Your task to perform on an android device: toggle pop-ups in chrome Image 0: 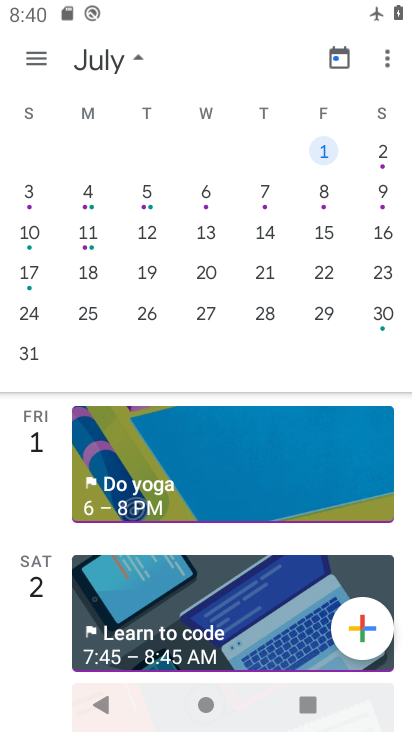
Step 0: press back button
Your task to perform on an android device: toggle pop-ups in chrome Image 1: 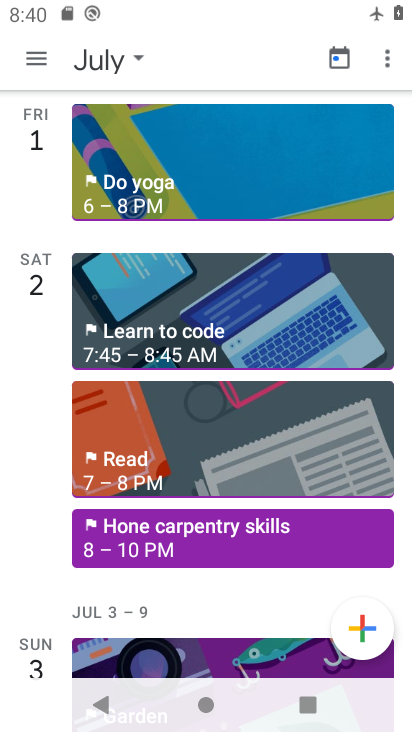
Step 1: press home button
Your task to perform on an android device: toggle pop-ups in chrome Image 2: 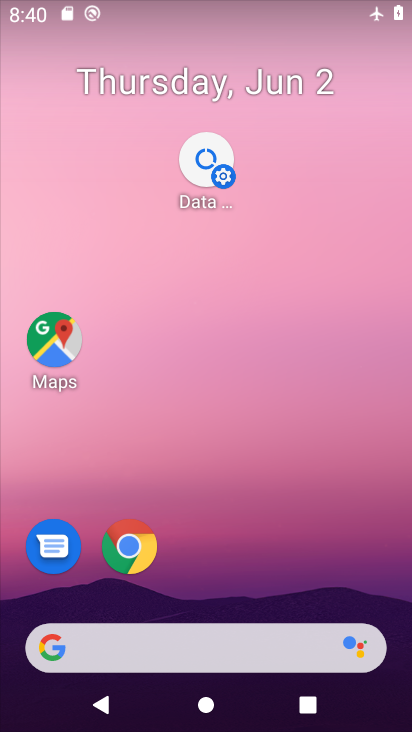
Step 2: drag from (279, 699) to (235, 499)
Your task to perform on an android device: toggle pop-ups in chrome Image 3: 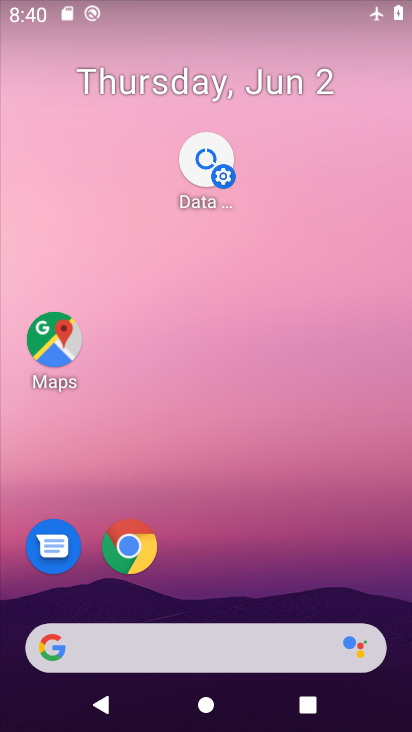
Step 3: drag from (223, 683) to (154, 3)
Your task to perform on an android device: toggle pop-ups in chrome Image 4: 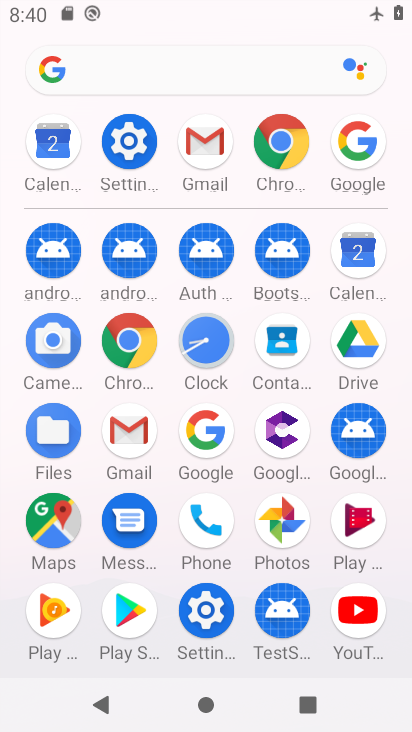
Step 4: drag from (244, 586) to (217, 204)
Your task to perform on an android device: toggle pop-ups in chrome Image 5: 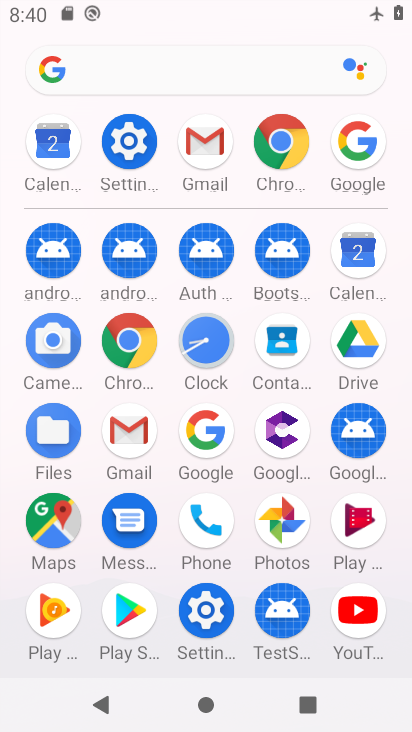
Step 5: click (264, 142)
Your task to perform on an android device: toggle pop-ups in chrome Image 6: 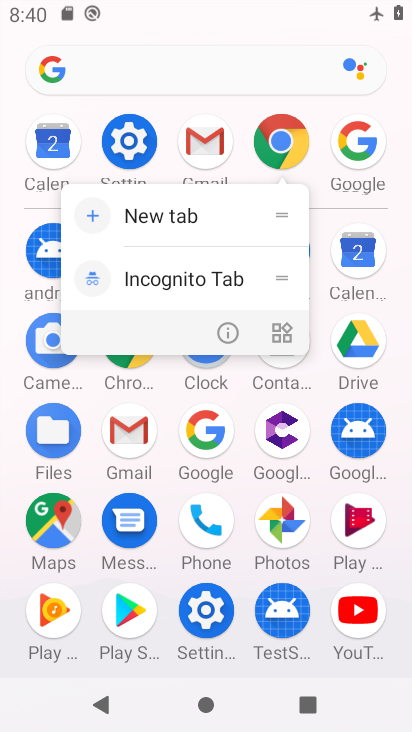
Step 6: click (283, 136)
Your task to perform on an android device: toggle pop-ups in chrome Image 7: 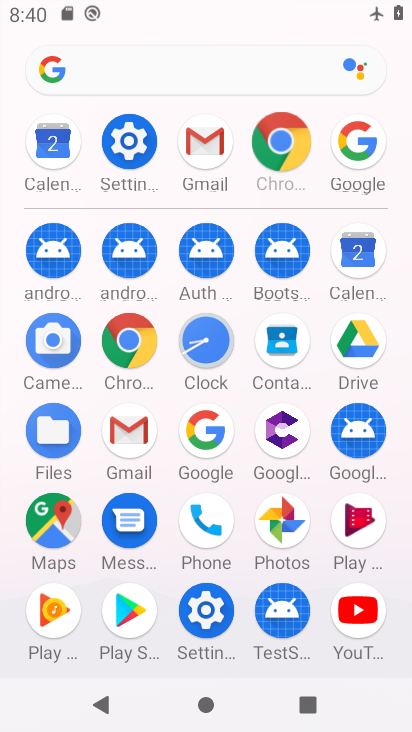
Step 7: click (283, 136)
Your task to perform on an android device: toggle pop-ups in chrome Image 8: 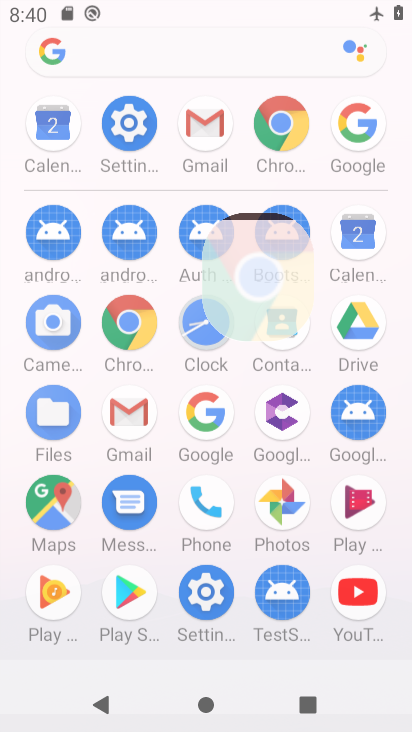
Step 8: click (283, 136)
Your task to perform on an android device: toggle pop-ups in chrome Image 9: 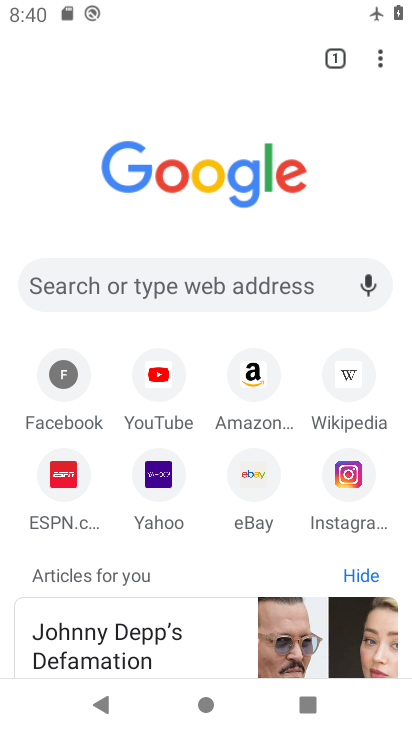
Step 9: click (282, 135)
Your task to perform on an android device: toggle pop-ups in chrome Image 10: 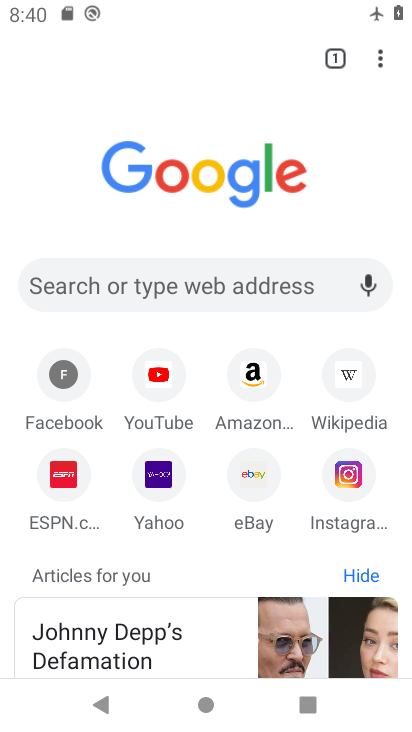
Step 10: drag from (380, 57) to (158, 490)
Your task to perform on an android device: toggle pop-ups in chrome Image 11: 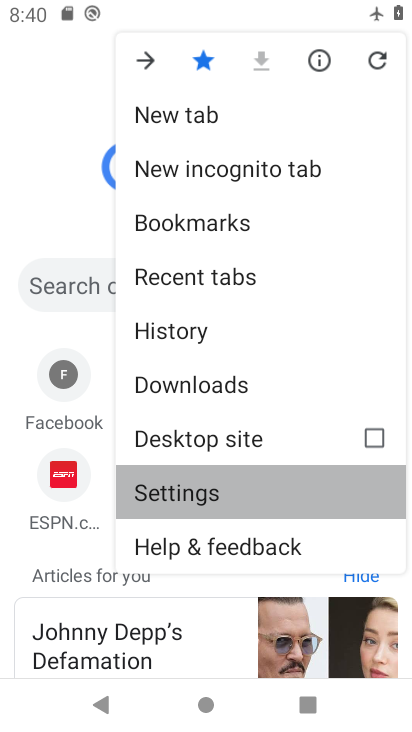
Step 11: click (158, 490)
Your task to perform on an android device: toggle pop-ups in chrome Image 12: 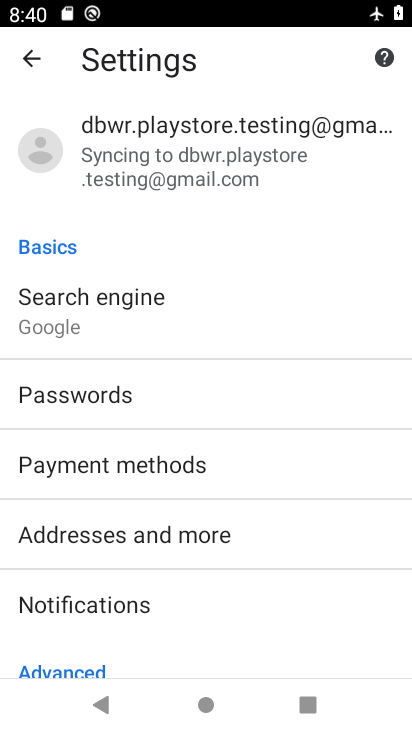
Step 12: drag from (148, 556) to (95, 67)
Your task to perform on an android device: toggle pop-ups in chrome Image 13: 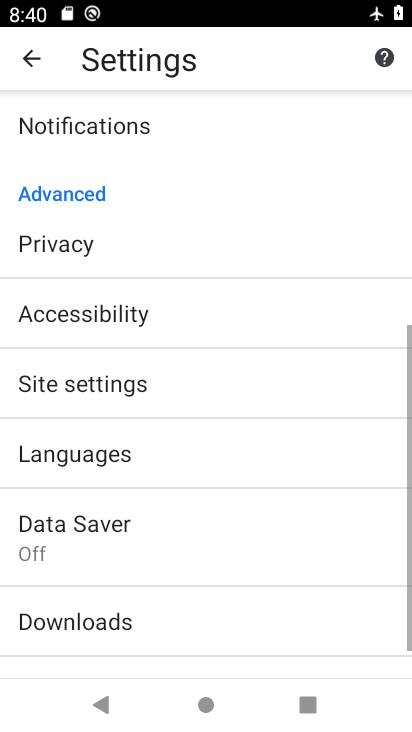
Step 13: drag from (200, 505) to (157, 137)
Your task to perform on an android device: toggle pop-ups in chrome Image 14: 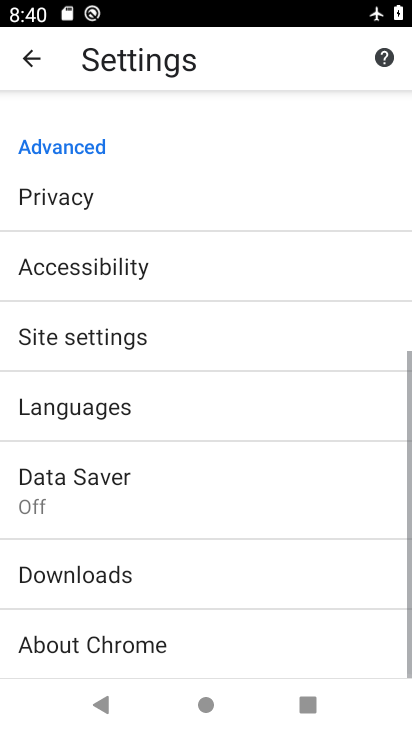
Step 14: drag from (200, 461) to (176, 195)
Your task to perform on an android device: toggle pop-ups in chrome Image 15: 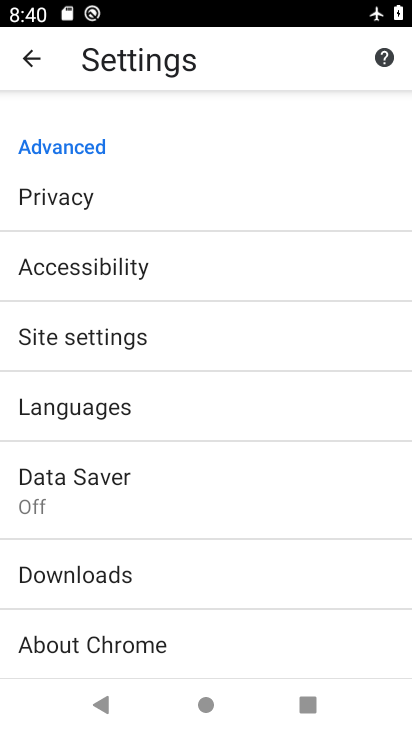
Step 15: click (65, 327)
Your task to perform on an android device: toggle pop-ups in chrome Image 16: 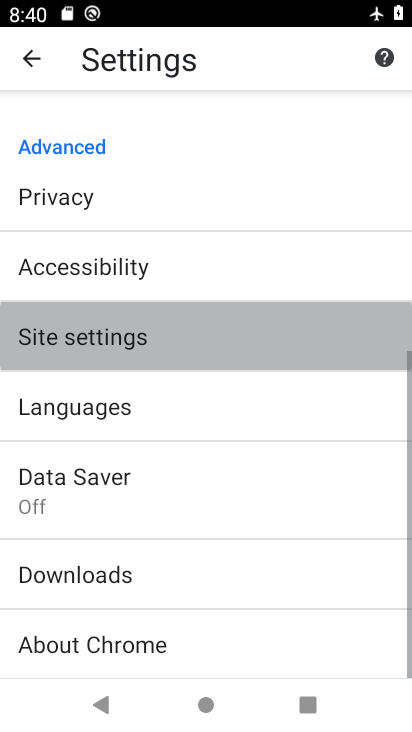
Step 16: click (65, 327)
Your task to perform on an android device: toggle pop-ups in chrome Image 17: 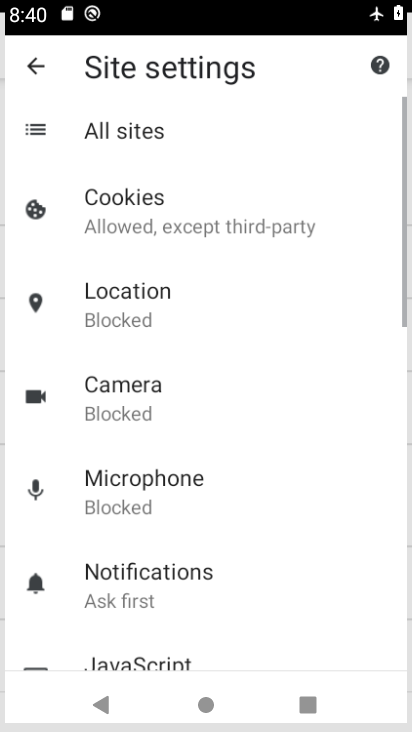
Step 17: click (65, 327)
Your task to perform on an android device: toggle pop-ups in chrome Image 18: 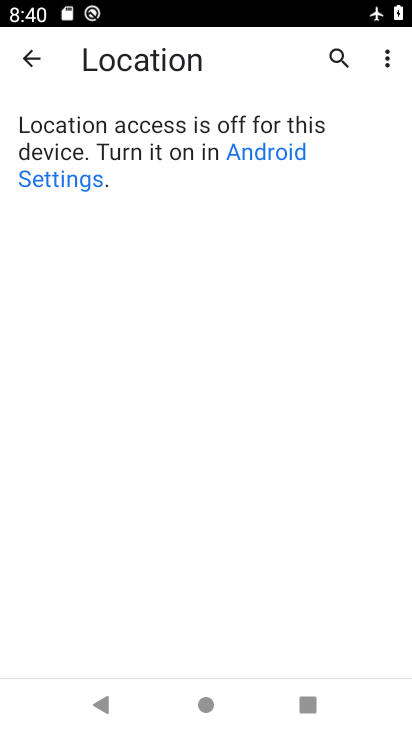
Step 18: click (34, 65)
Your task to perform on an android device: toggle pop-ups in chrome Image 19: 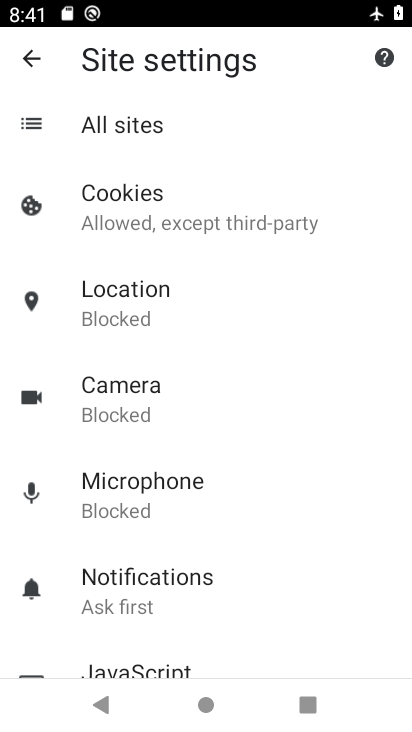
Step 19: drag from (191, 547) to (125, 63)
Your task to perform on an android device: toggle pop-ups in chrome Image 20: 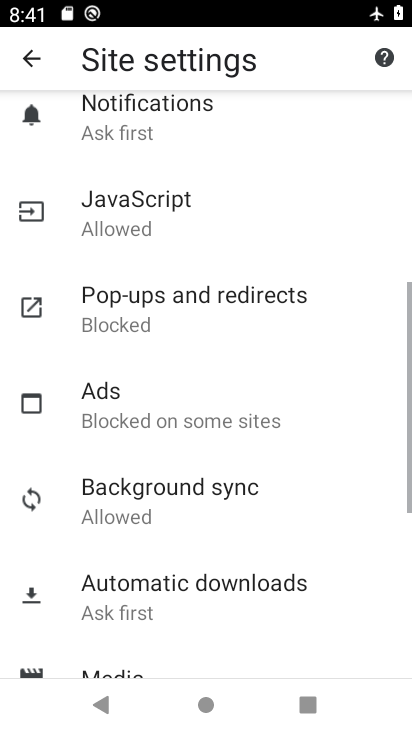
Step 20: drag from (202, 422) to (202, 142)
Your task to perform on an android device: toggle pop-ups in chrome Image 21: 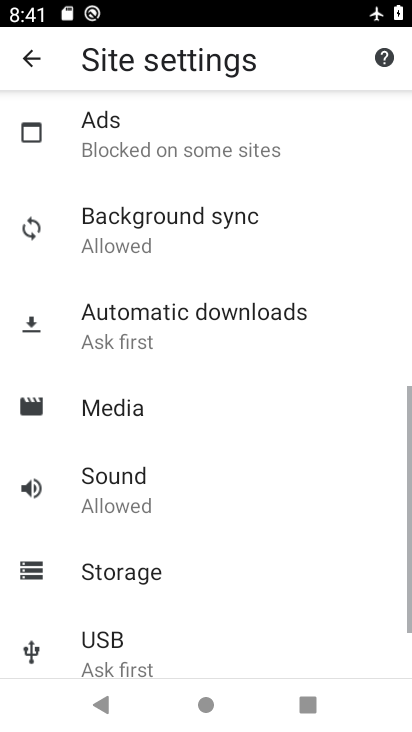
Step 21: drag from (219, 236) to (219, 456)
Your task to perform on an android device: toggle pop-ups in chrome Image 22: 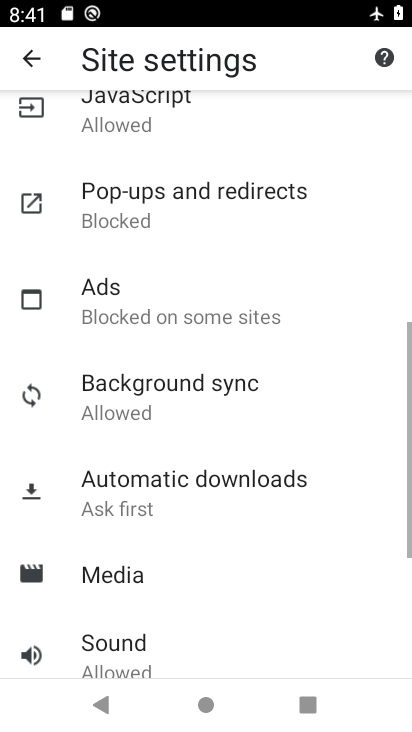
Step 22: click (194, 476)
Your task to perform on an android device: toggle pop-ups in chrome Image 23: 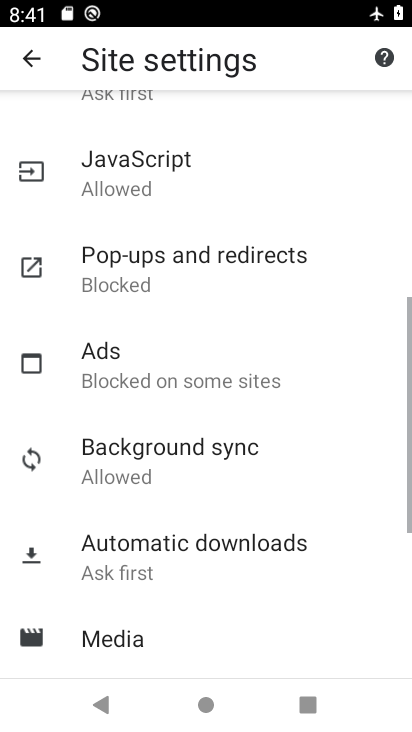
Step 23: drag from (181, 270) to (193, 474)
Your task to perform on an android device: toggle pop-ups in chrome Image 24: 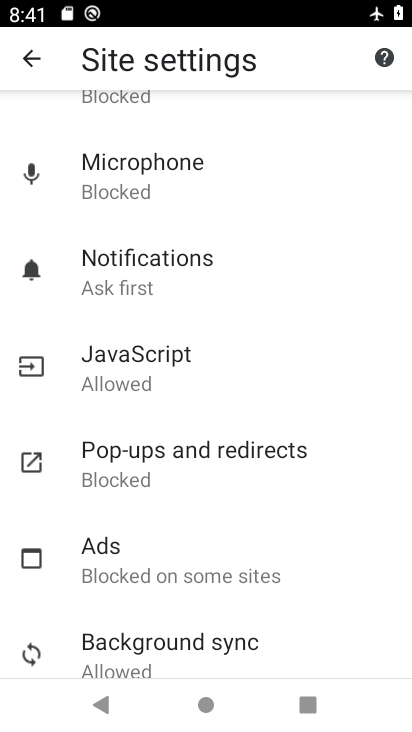
Step 24: click (128, 476)
Your task to perform on an android device: toggle pop-ups in chrome Image 25: 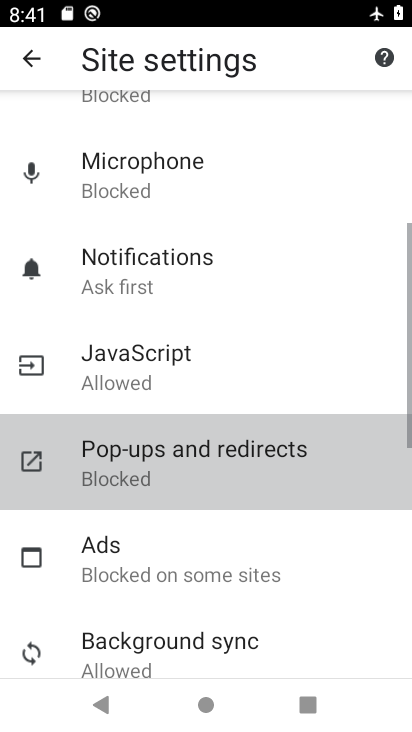
Step 25: click (124, 466)
Your task to perform on an android device: toggle pop-ups in chrome Image 26: 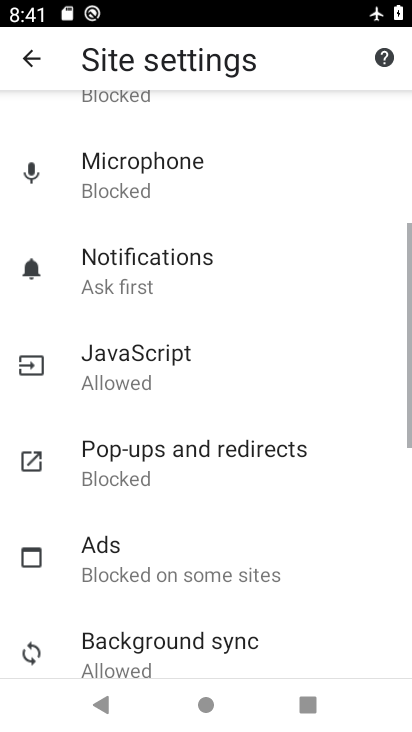
Step 26: click (124, 466)
Your task to perform on an android device: toggle pop-ups in chrome Image 27: 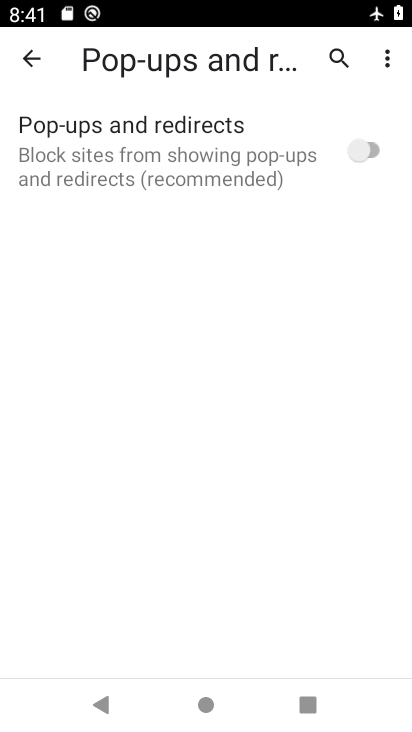
Step 27: click (124, 465)
Your task to perform on an android device: toggle pop-ups in chrome Image 28: 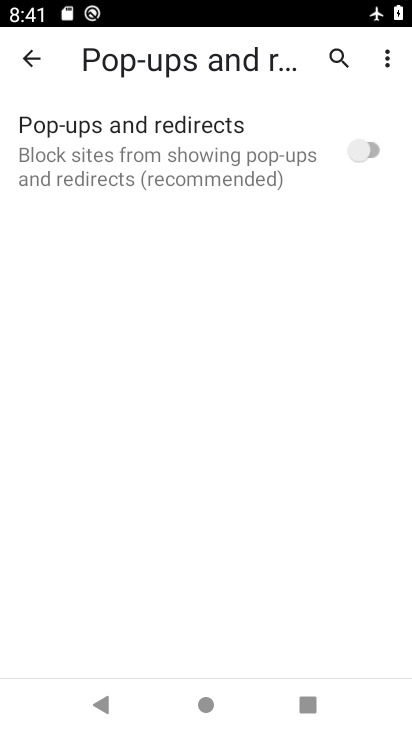
Step 28: click (360, 154)
Your task to perform on an android device: toggle pop-ups in chrome Image 29: 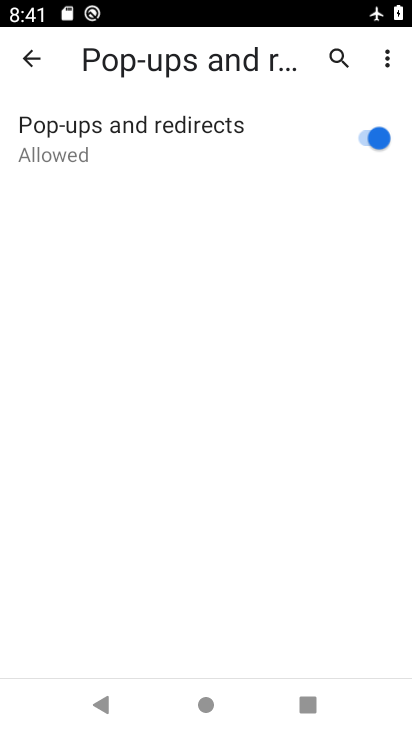
Step 29: task complete